Your task to perform on an android device: Go to Maps Image 0: 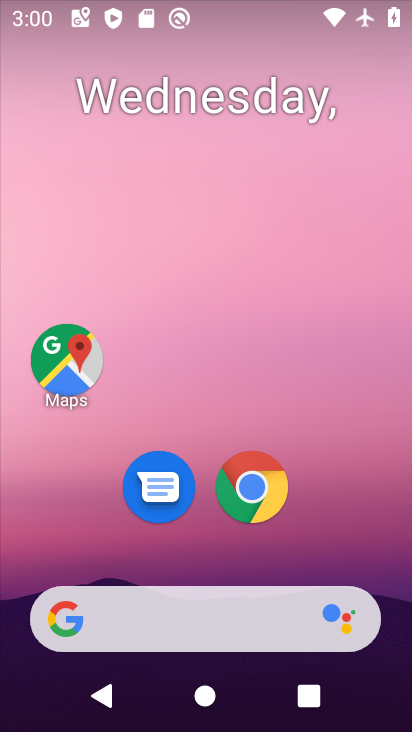
Step 0: click (59, 371)
Your task to perform on an android device: Go to Maps Image 1: 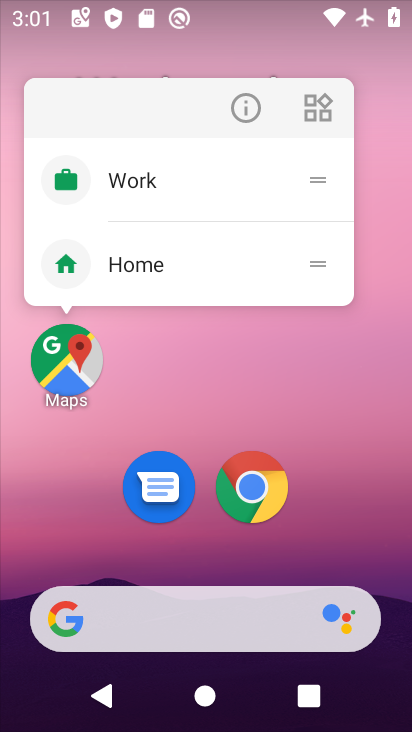
Step 1: click (59, 371)
Your task to perform on an android device: Go to Maps Image 2: 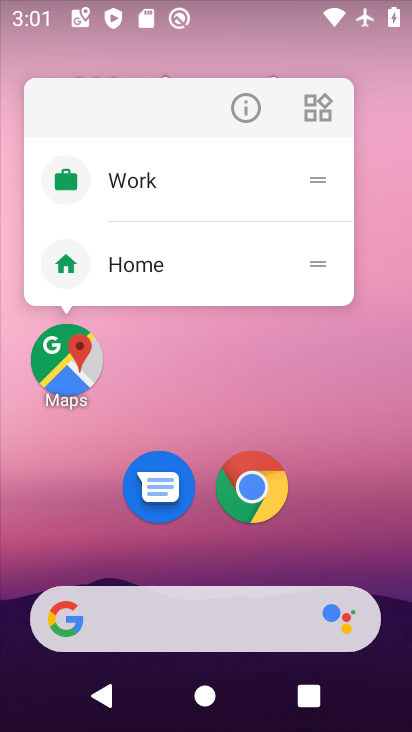
Step 2: click (59, 370)
Your task to perform on an android device: Go to Maps Image 3: 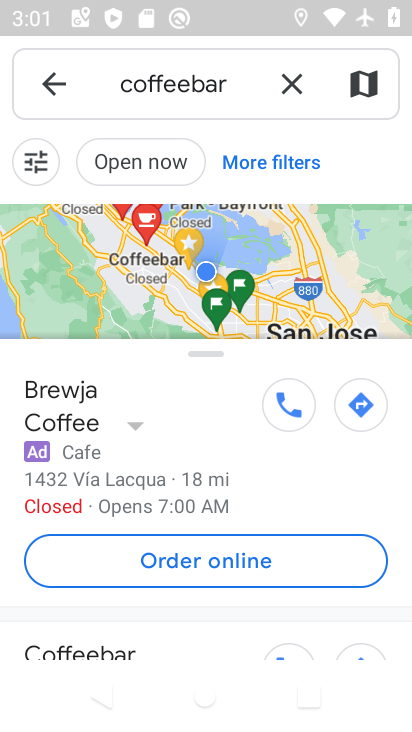
Step 3: task complete